Your task to perform on an android device: open app "File Manager" Image 0: 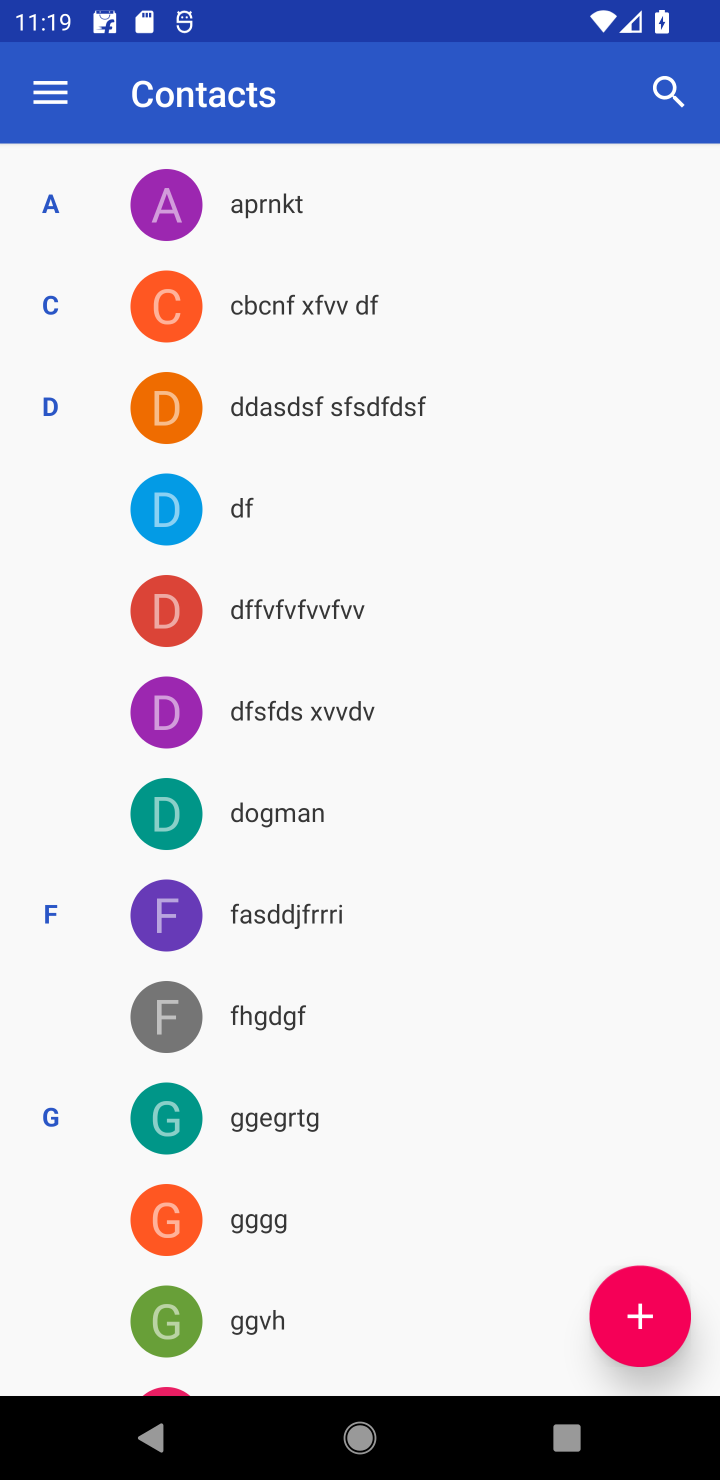
Step 0: press home button
Your task to perform on an android device: open app "File Manager" Image 1: 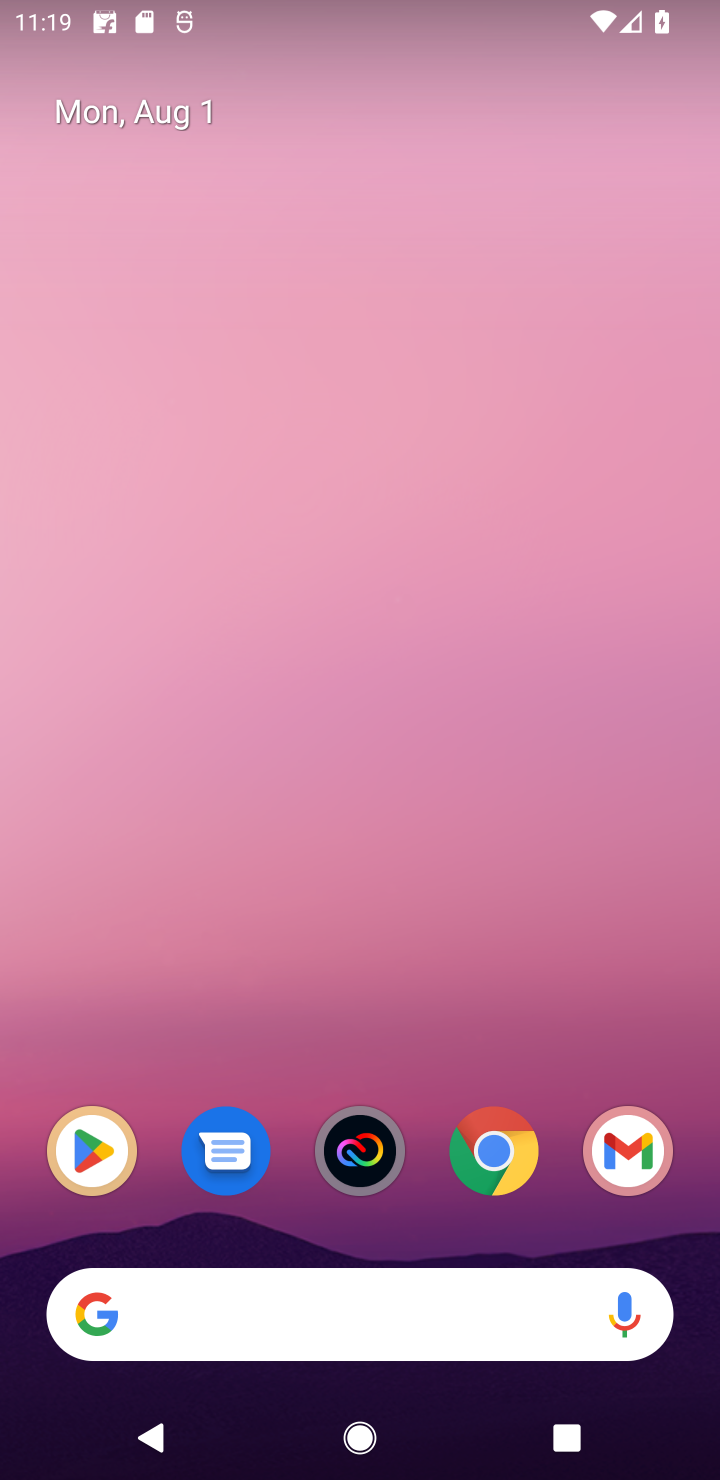
Step 1: click (97, 1158)
Your task to perform on an android device: open app "File Manager" Image 2: 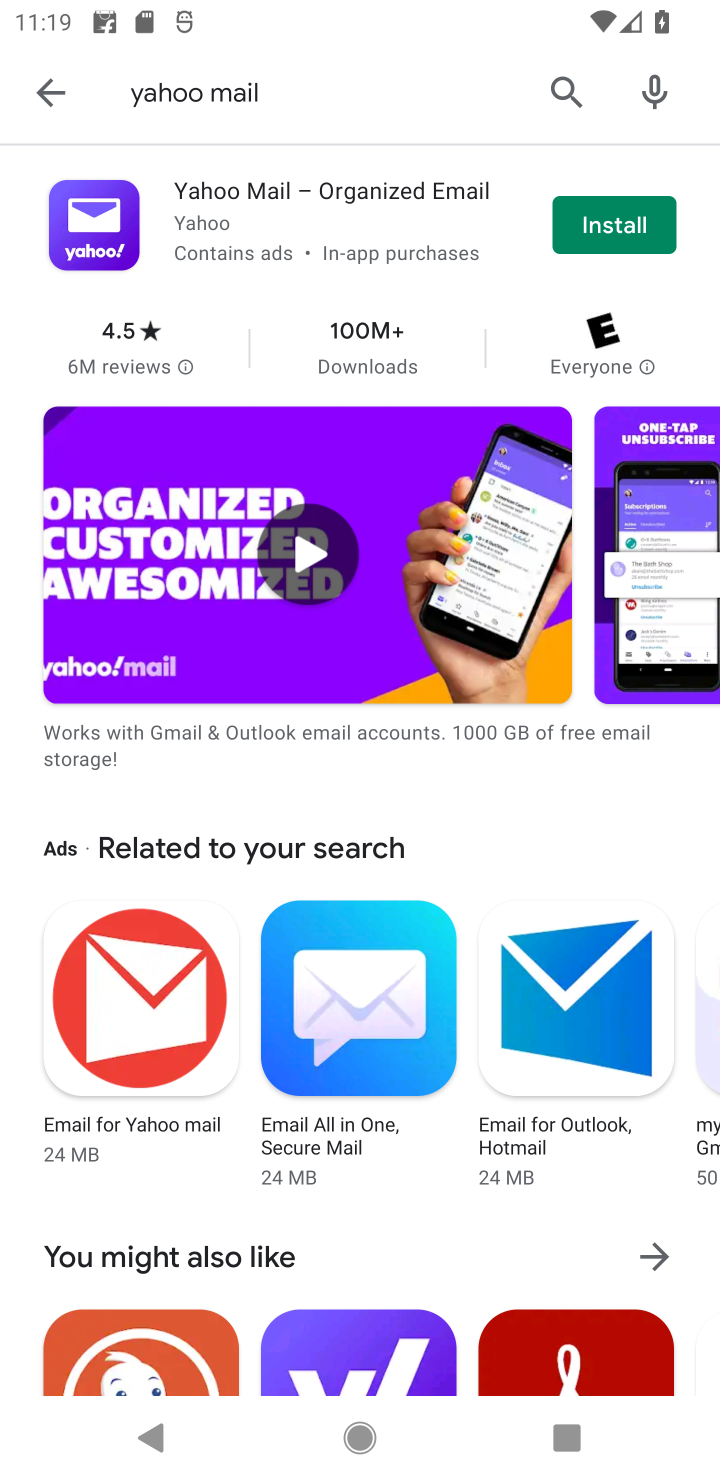
Step 2: click (563, 67)
Your task to perform on an android device: open app "File Manager" Image 3: 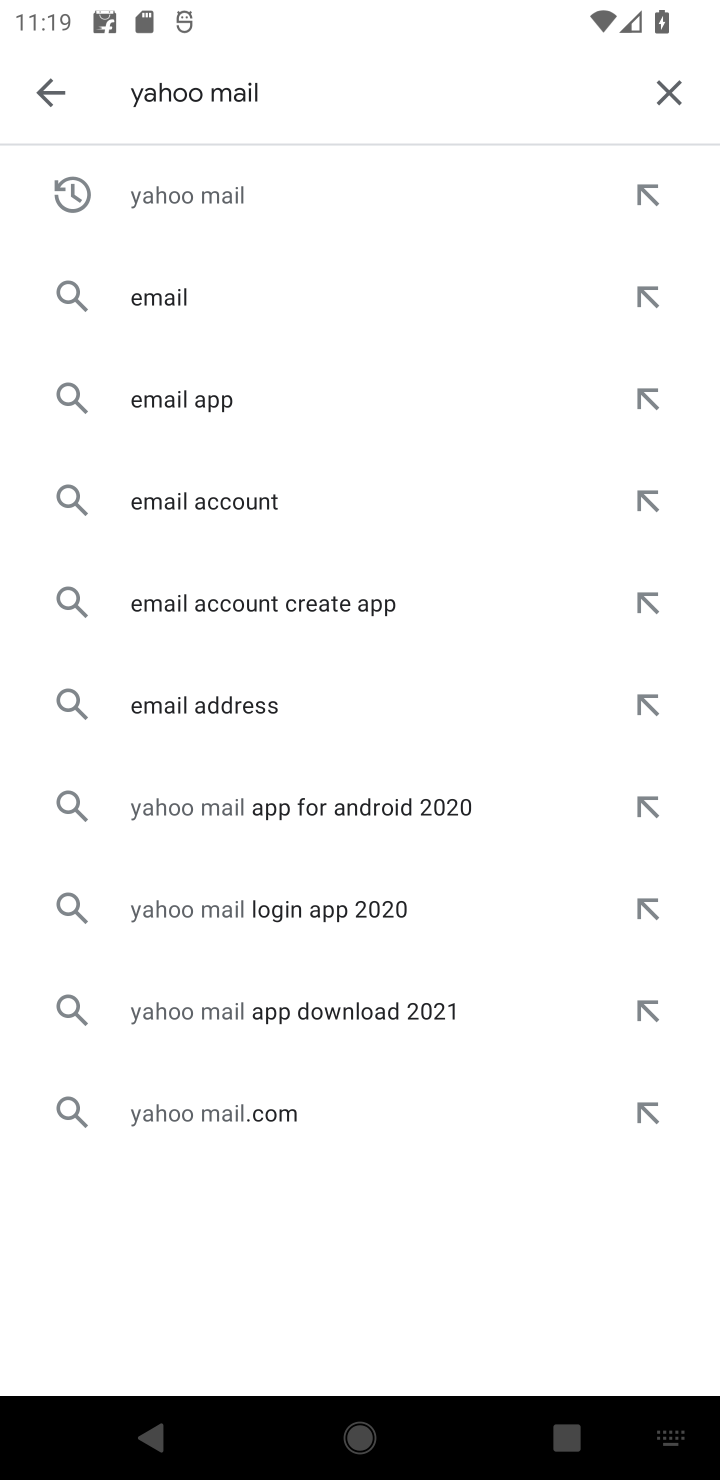
Step 3: click (655, 89)
Your task to perform on an android device: open app "File Manager" Image 4: 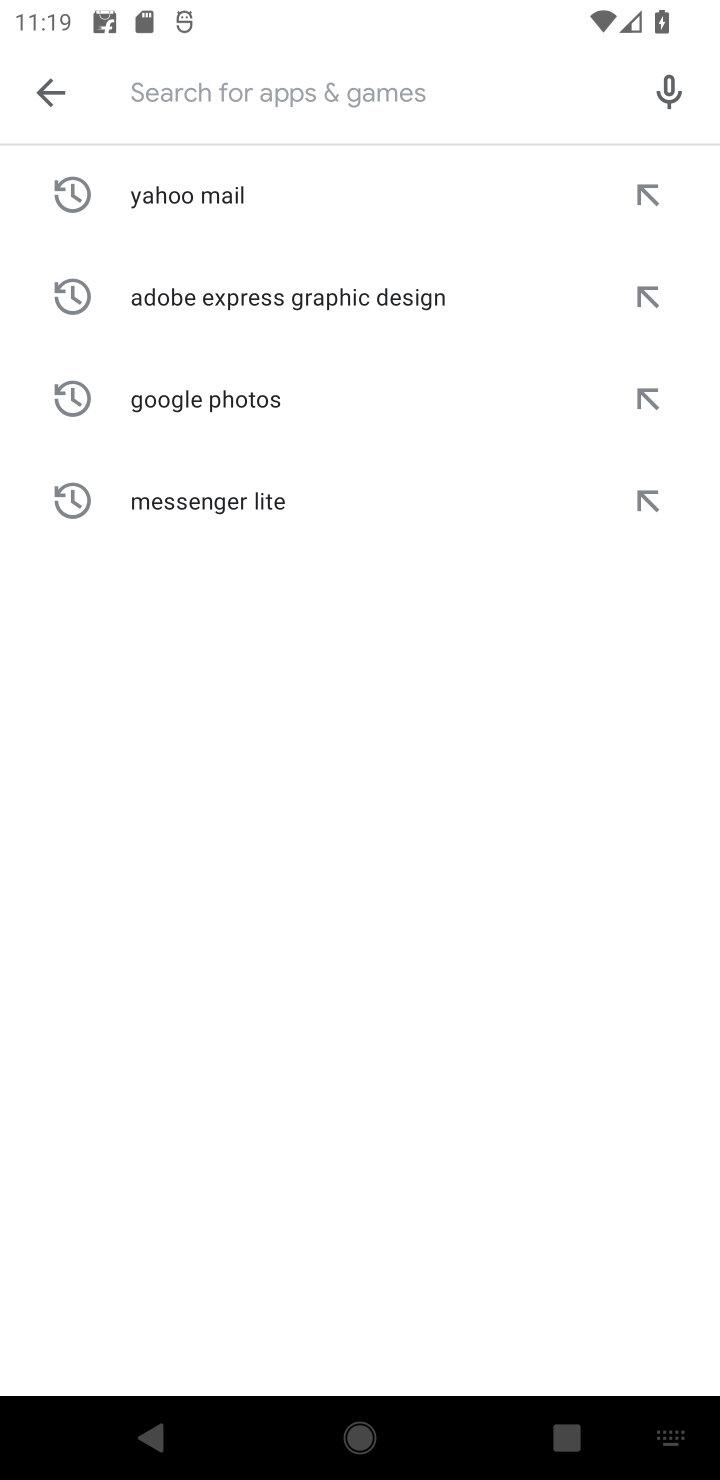
Step 4: type "File Manager"
Your task to perform on an android device: open app "File Manager" Image 5: 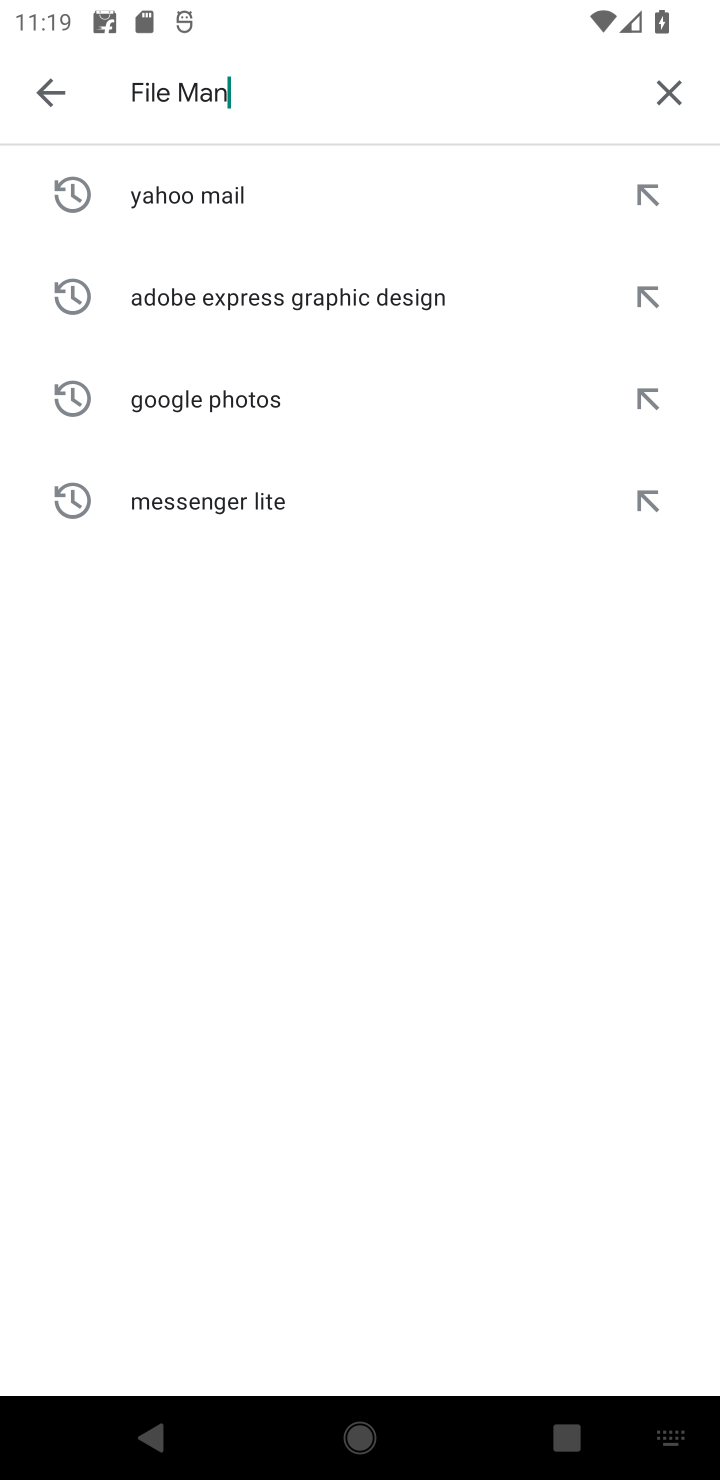
Step 5: type ""
Your task to perform on an android device: open app "File Manager" Image 6: 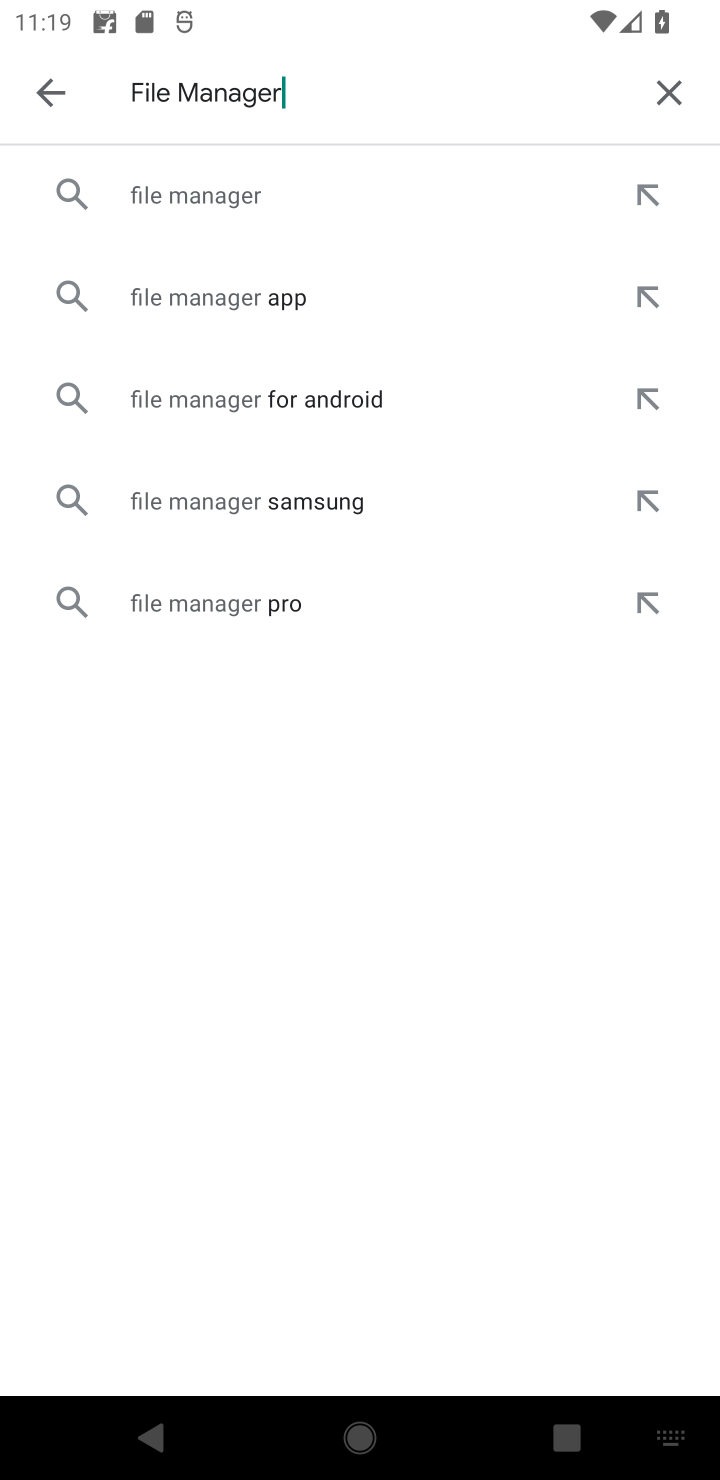
Step 6: click (264, 193)
Your task to perform on an android device: open app "File Manager" Image 7: 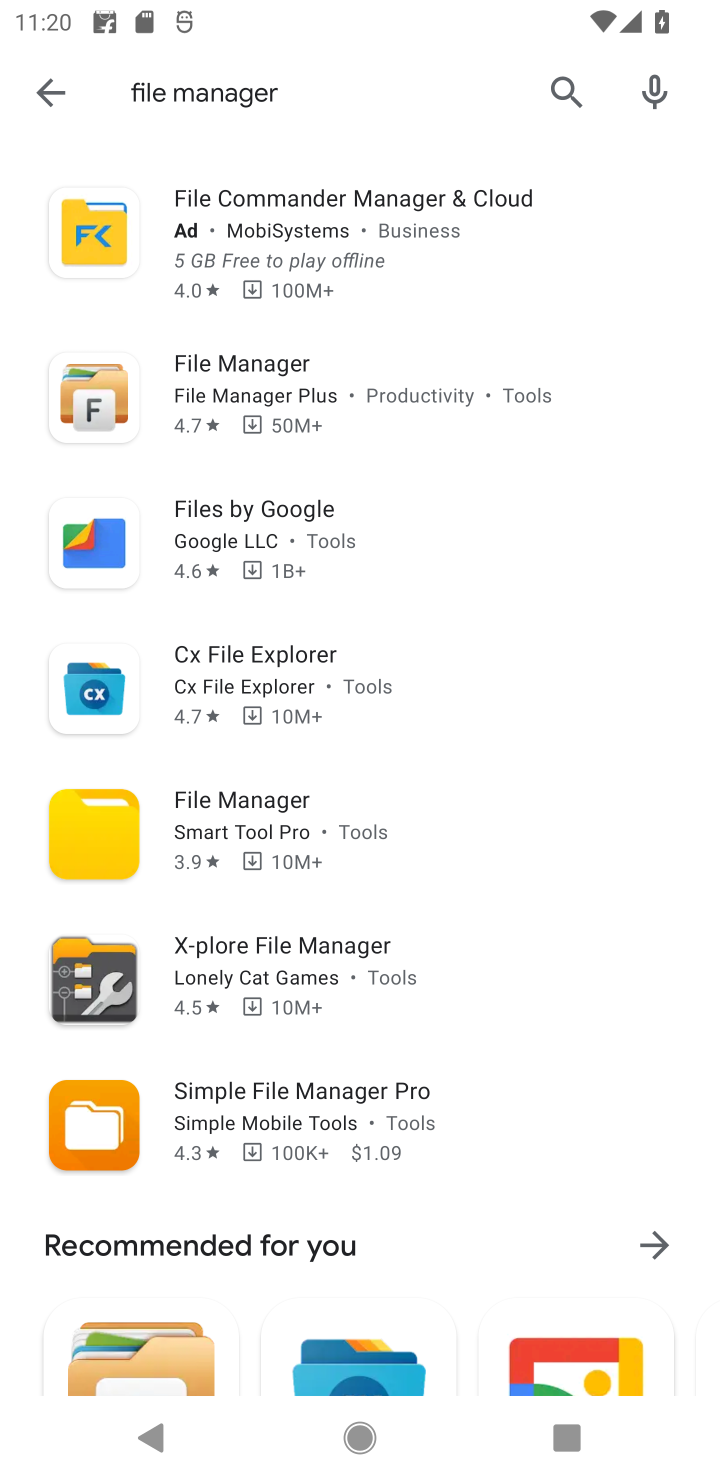
Step 7: click (313, 800)
Your task to perform on an android device: open app "File Manager" Image 8: 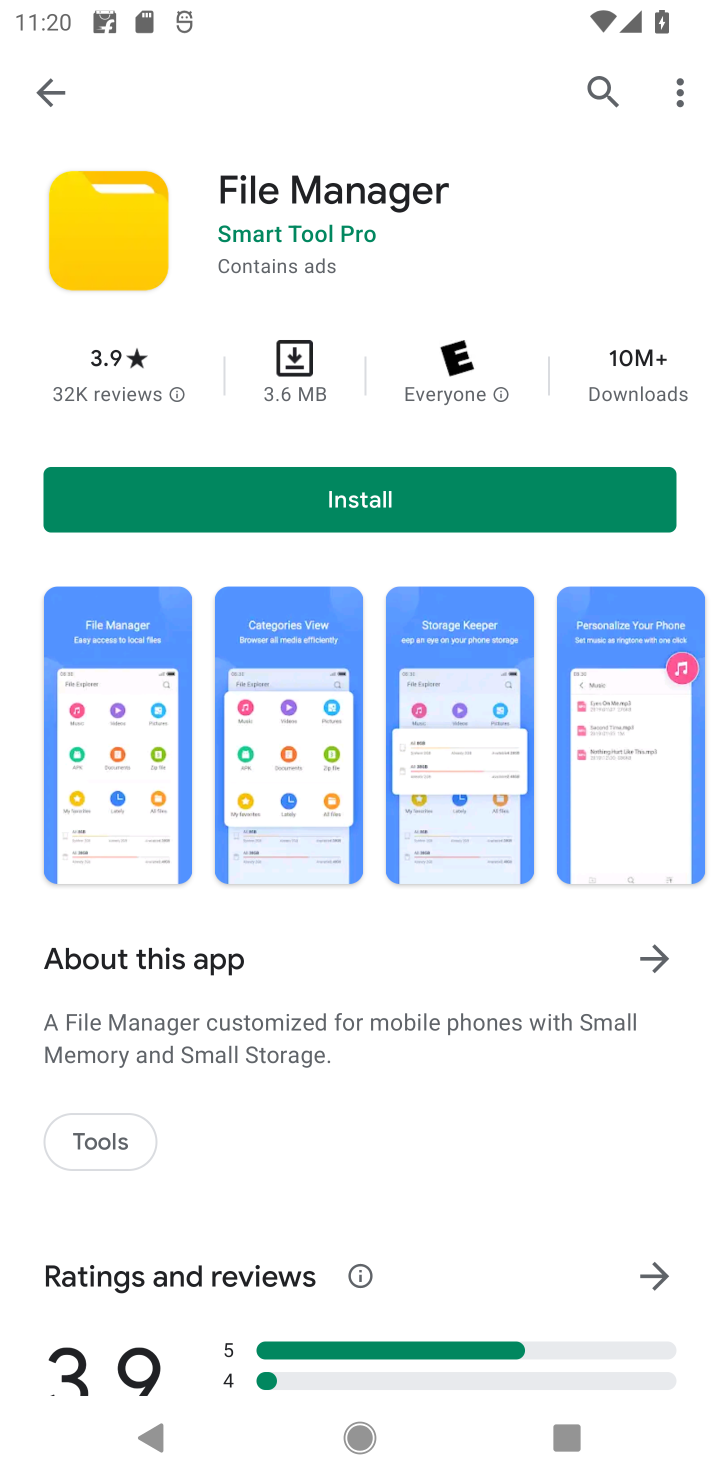
Step 8: task complete